Your task to perform on an android device: Go to network settings Image 0: 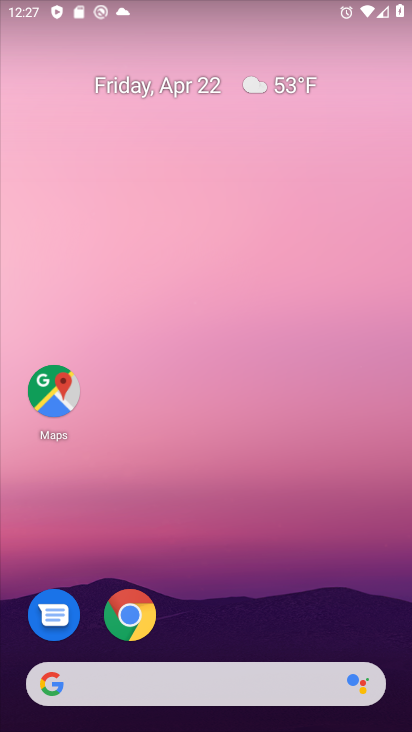
Step 0: drag from (230, 726) to (203, 51)
Your task to perform on an android device: Go to network settings Image 1: 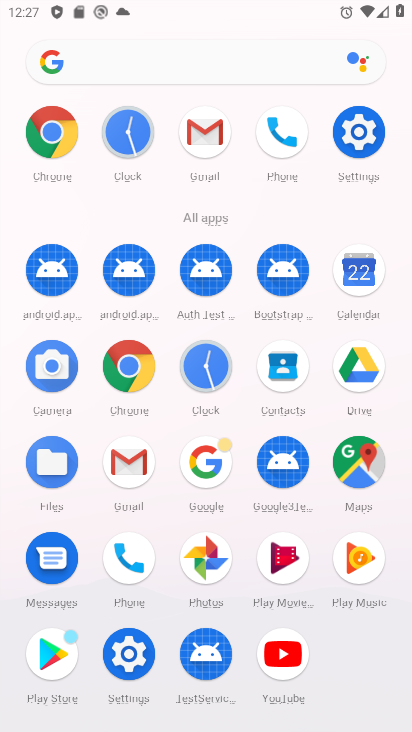
Step 1: click (346, 139)
Your task to perform on an android device: Go to network settings Image 2: 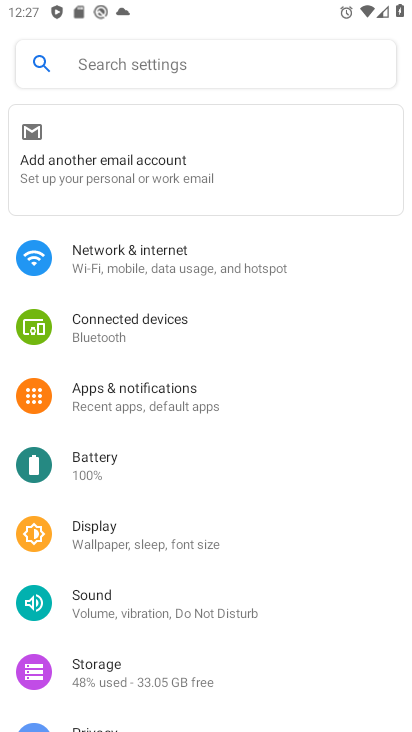
Step 2: click (146, 258)
Your task to perform on an android device: Go to network settings Image 3: 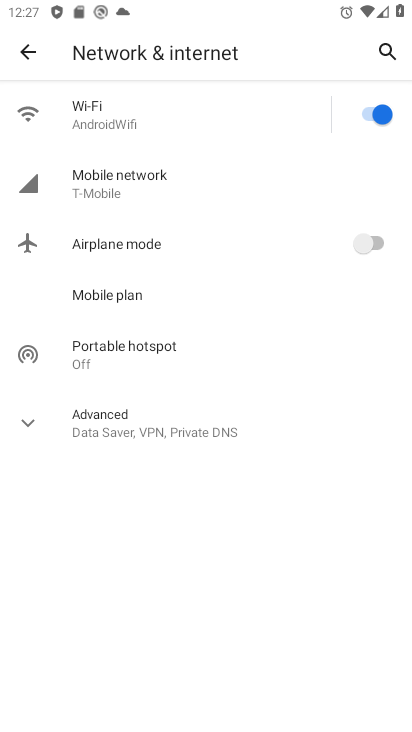
Step 3: task complete